Your task to perform on an android device: turn smart compose on in the gmail app Image 0: 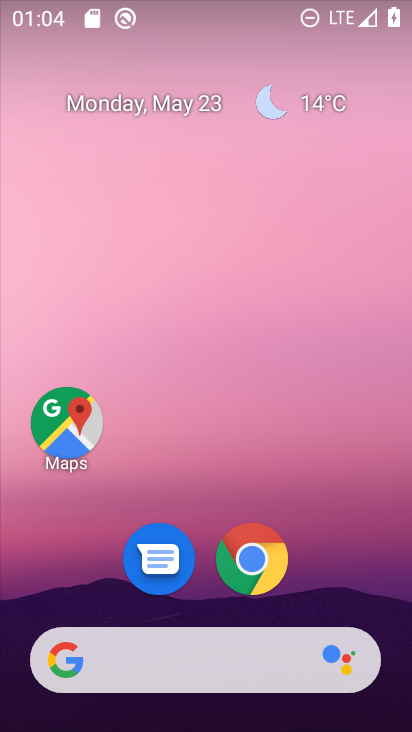
Step 0: drag from (363, 622) to (396, 548)
Your task to perform on an android device: turn smart compose on in the gmail app Image 1: 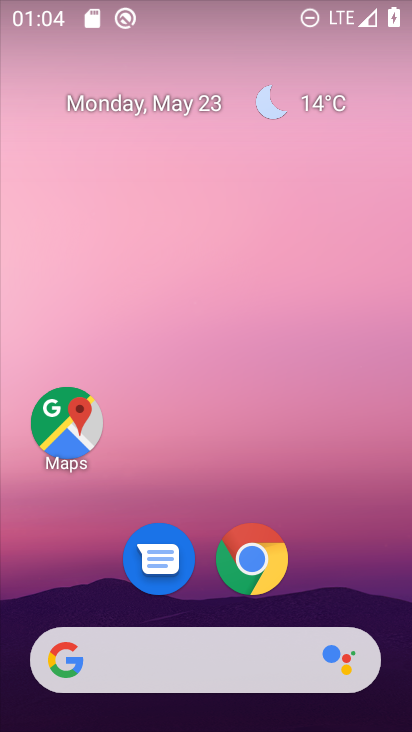
Step 1: drag from (348, 597) to (265, 33)
Your task to perform on an android device: turn smart compose on in the gmail app Image 2: 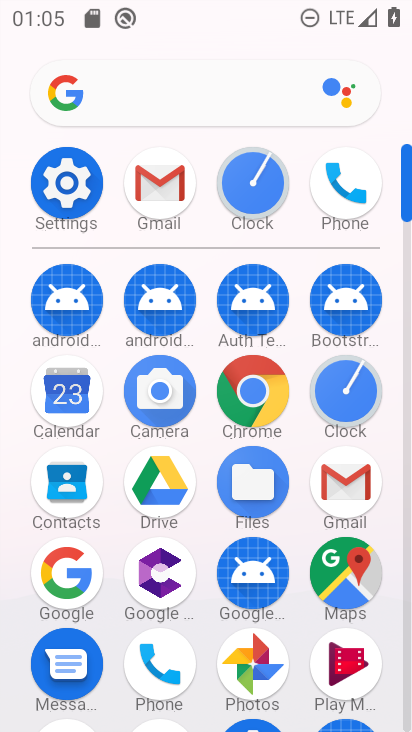
Step 2: click (161, 179)
Your task to perform on an android device: turn smart compose on in the gmail app Image 3: 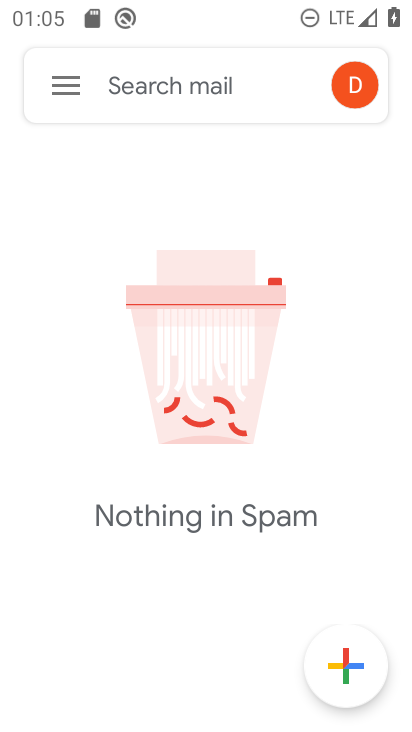
Step 3: click (57, 84)
Your task to perform on an android device: turn smart compose on in the gmail app Image 4: 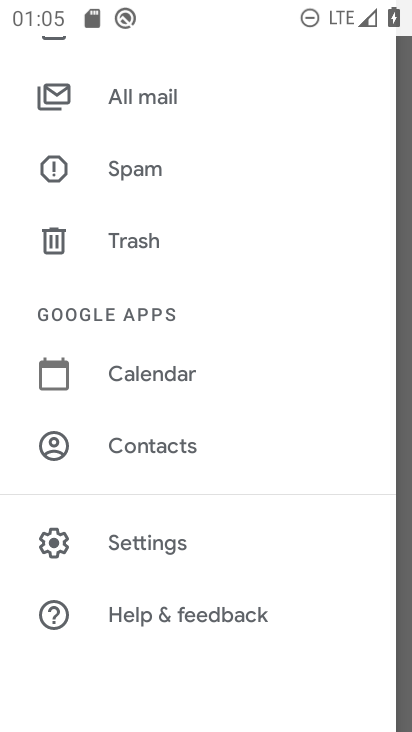
Step 4: click (143, 545)
Your task to perform on an android device: turn smart compose on in the gmail app Image 5: 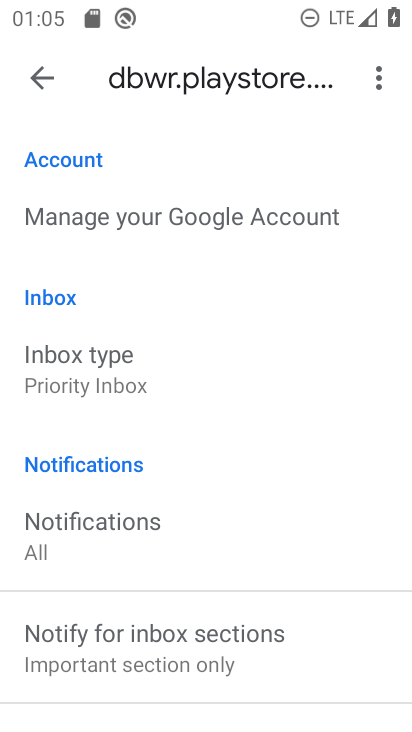
Step 5: task complete